Your task to perform on an android device: Search for sushi restaurants on Maps Image 0: 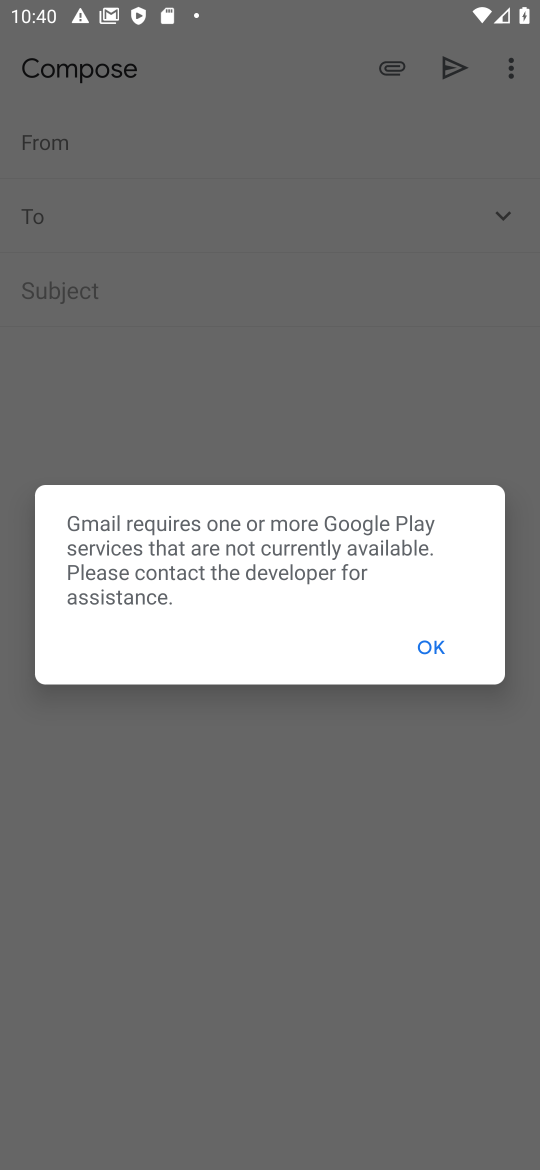
Step 0: press home button
Your task to perform on an android device: Search for sushi restaurants on Maps Image 1: 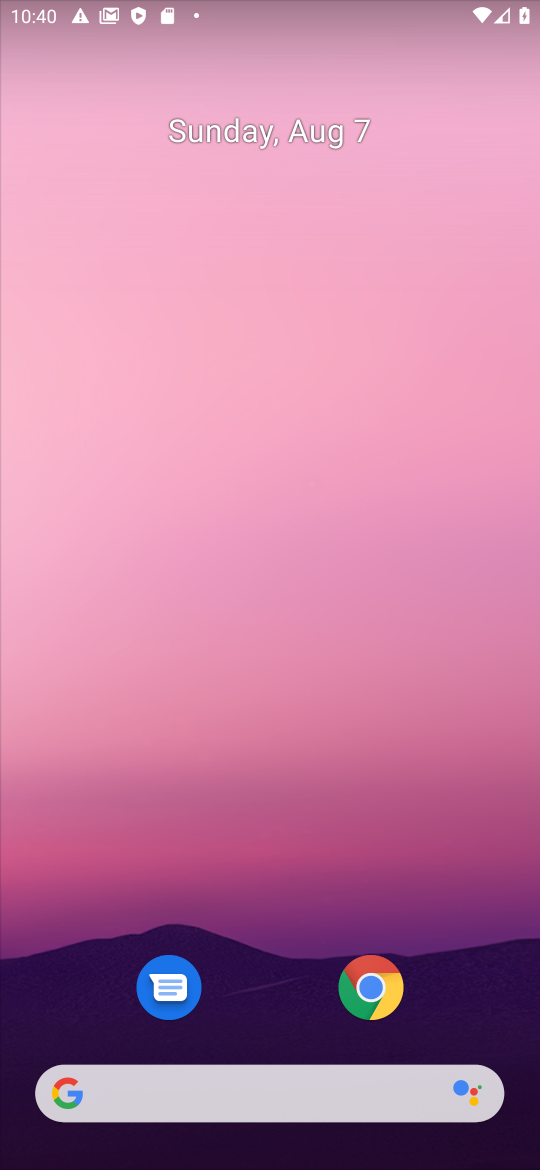
Step 1: drag from (257, 991) to (236, 17)
Your task to perform on an android device: Search for sushi restaurants on Maps Image 2: 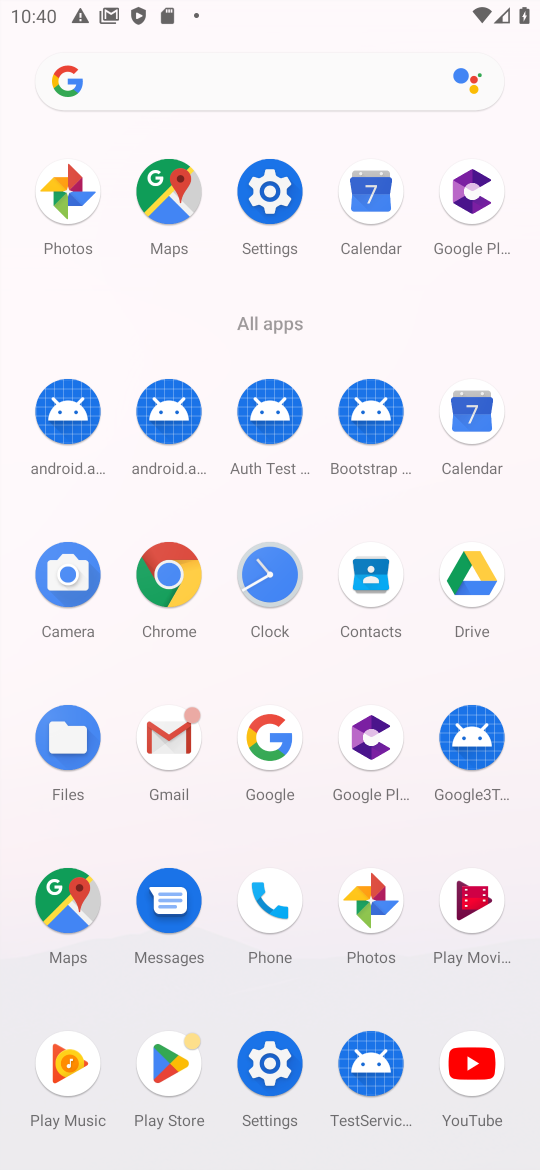
Step 2: click (166, 201)
Your task to perform on an android device: Search for sushi restaurants on Maps Image 3: 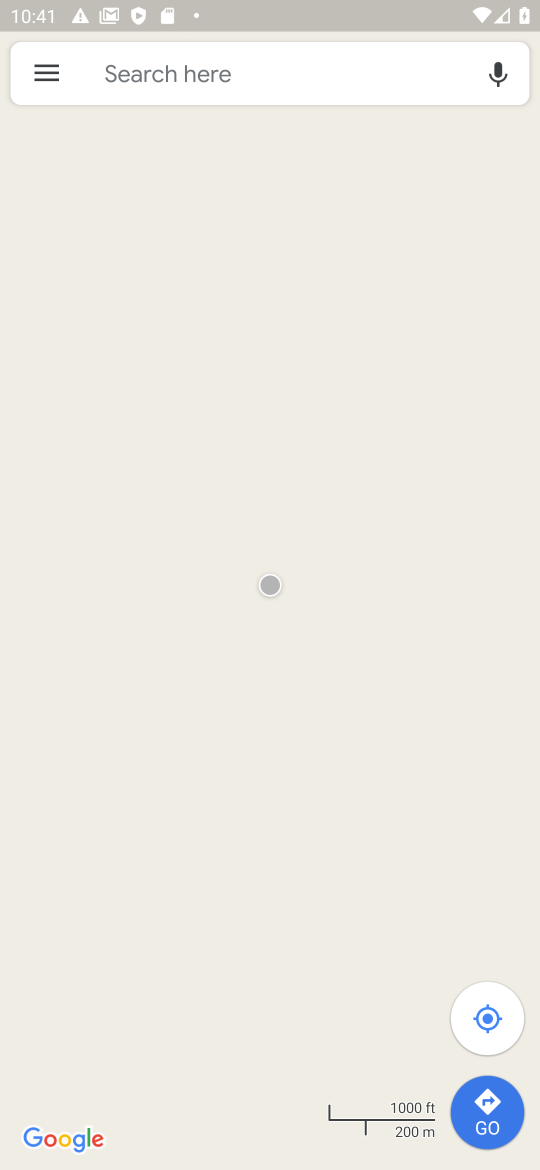
Step 3: click (255, 76)
Your task to perform on an android device: Search for sushi restaurants on Maps Image 4: 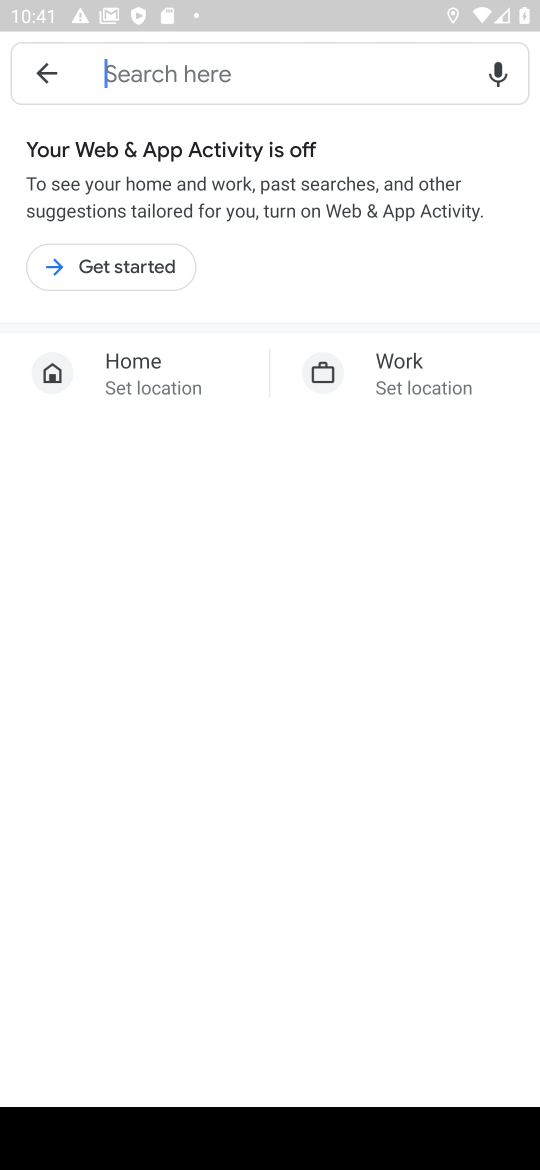
Step 4: type "sushi restaurants"
Your task to perform on an android device: Search for sushi restaurants on Maps Image 5: 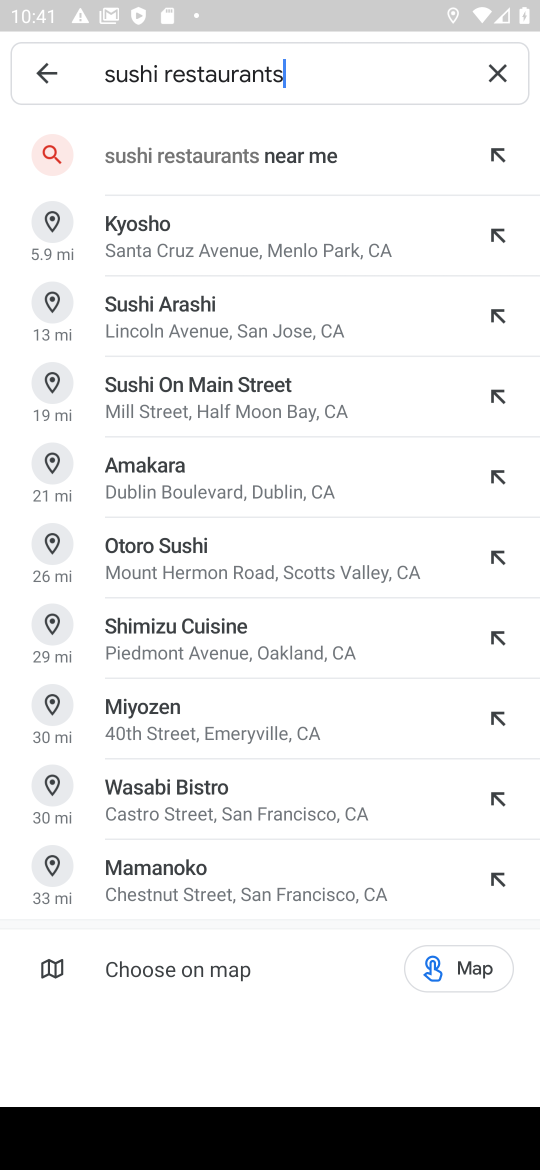
Step 5: click (308, 170)
Your task to perform on an android device: Search for sushi restaurants on Maps Image 6: 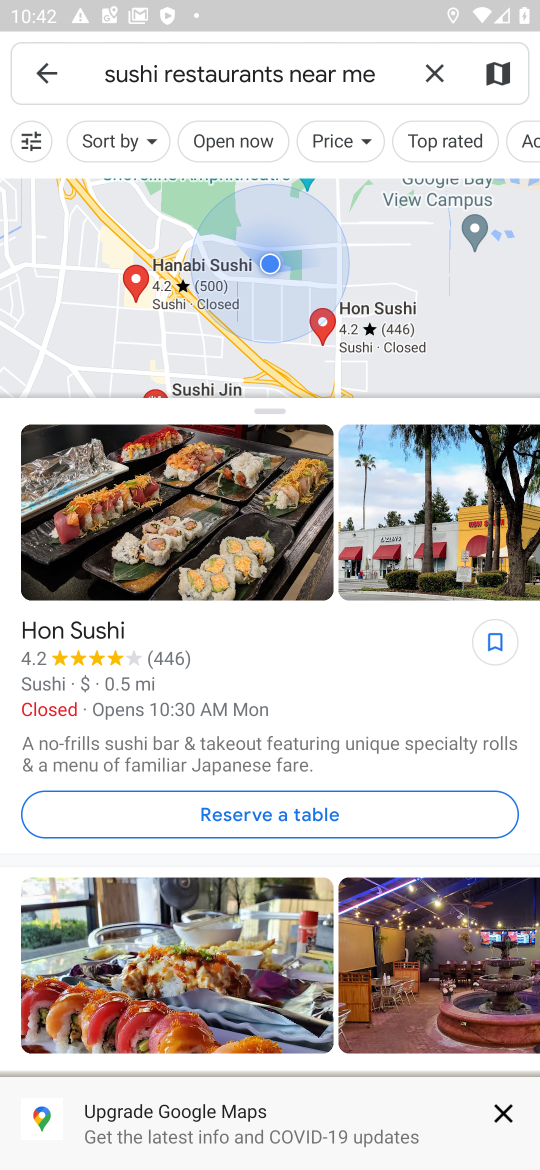
Step 6: task complete